Your task to perform on an android device: turn off data saver in the chrome app Image 0: 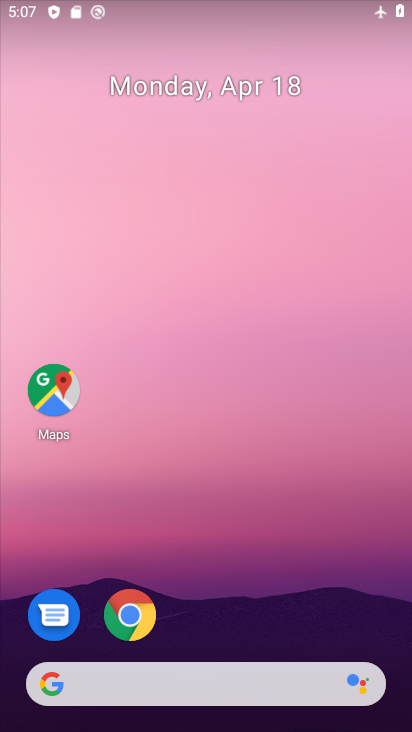
Step 0: click (126, 609)
Your task to perform on an android device: turn off data saver in the chrome app Image 1: 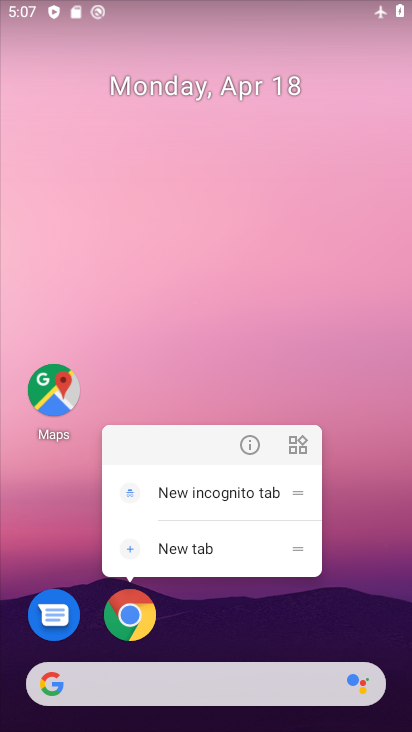
Step 1: click (127, 622)
Your task to perform on an android device: turn off data saver in the chrome app Image 2: 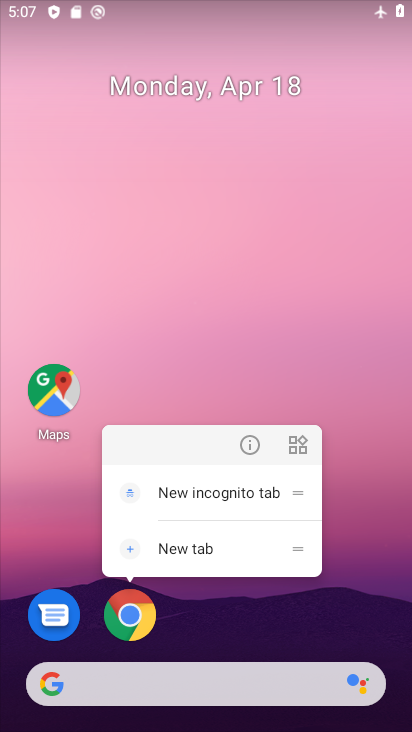
Step 2: click (123, 622)
Your task to perform on an android device: turn off data saver in the chrome app Image 3: 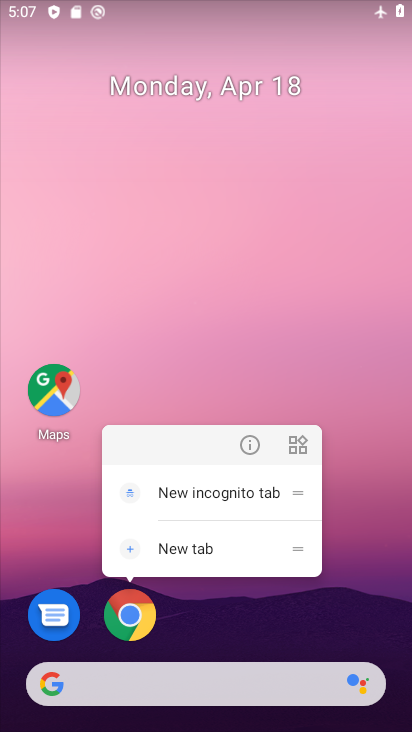
Step 3: click (227, 630)
Your task to perform on an android device: turn off data saver in the chrome app Image 4: 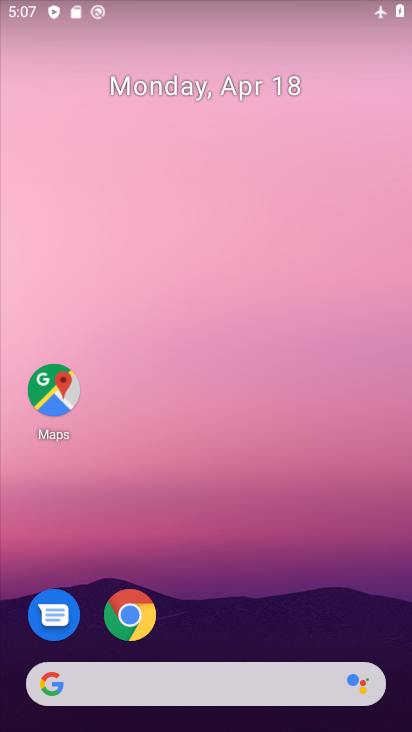
Step 4: drag from (227, 630) to (321, 10)
Your task to perform on an android device: turn off data saver in the chrome app Image 5: 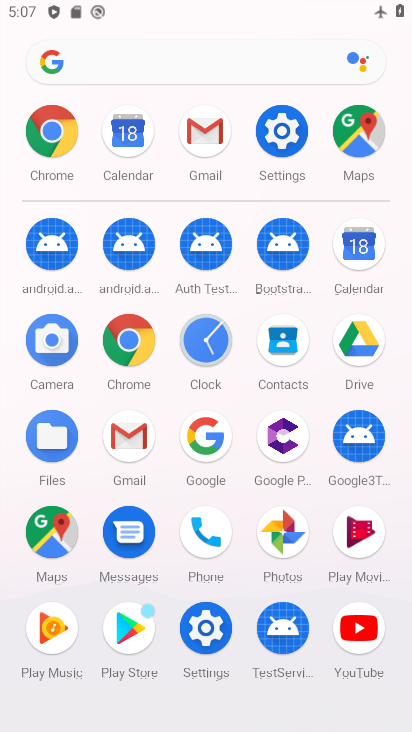
Step 5: click (51, 139)
Your task to perform on an android device: turn off data saver in the chrome app Image 6: 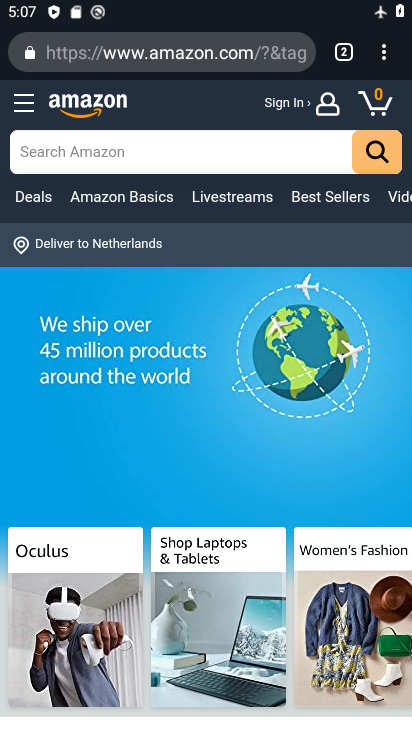
Step 6: click (382, 64)
Your task to perform on an android device: turn off data saver in the chrome app Image 7: 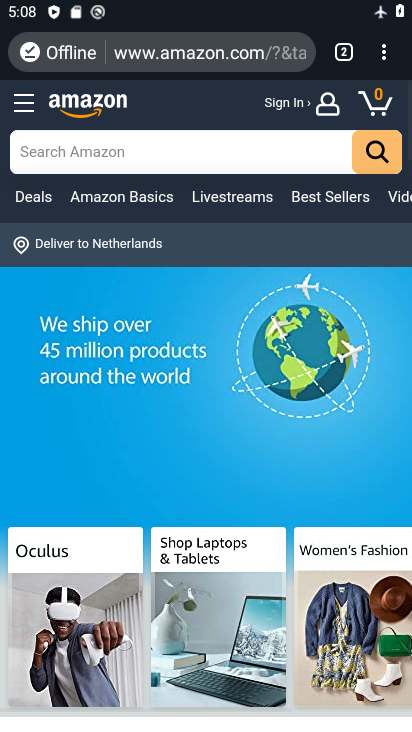
Step 7: click (382, 64)
Your task to perform on an android device: turn off data saver in the chrome app Image 8: 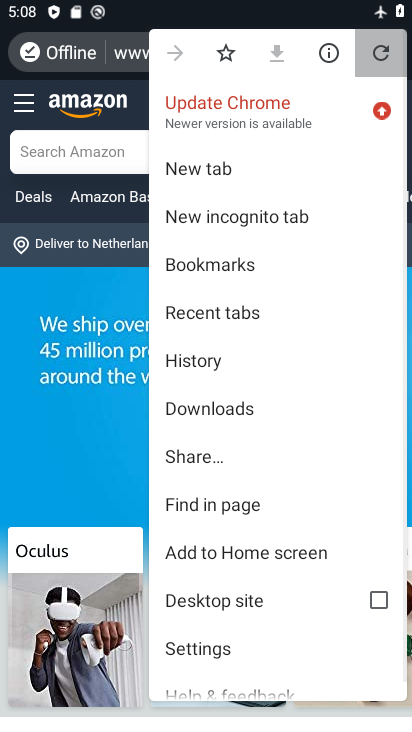
Step 8: drag from (286, 230) to (242, 395)
Your task to perform on an android device: turn off data saver in the chrome app Image 9: 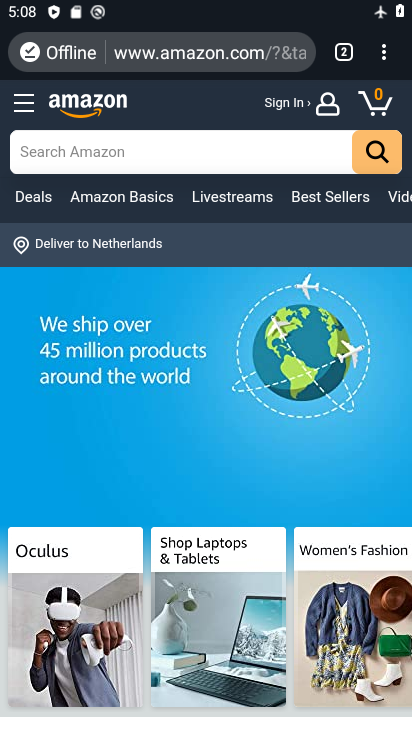
Step 9: drag from (384, 42) to (221, 636)
Your task to perform on an android device: turn off data saver in the chrome app Image 10: 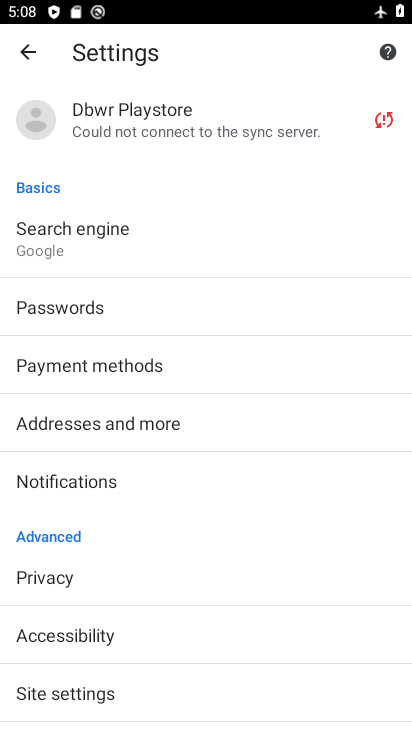
Step 10: drag from (215, 587) to (224, 25)
Your task to perform on an android device: turn off data saver in the chrome app Image 11: 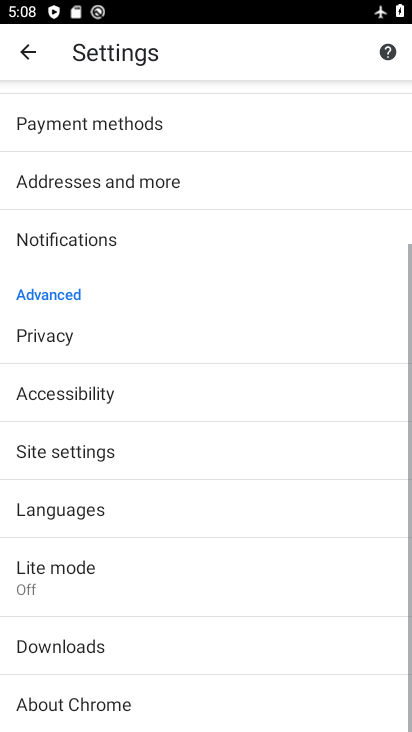
Step 11: click (80, 580)
Your task to perform on an android device: turn off data saver in the chrome app Image 12: 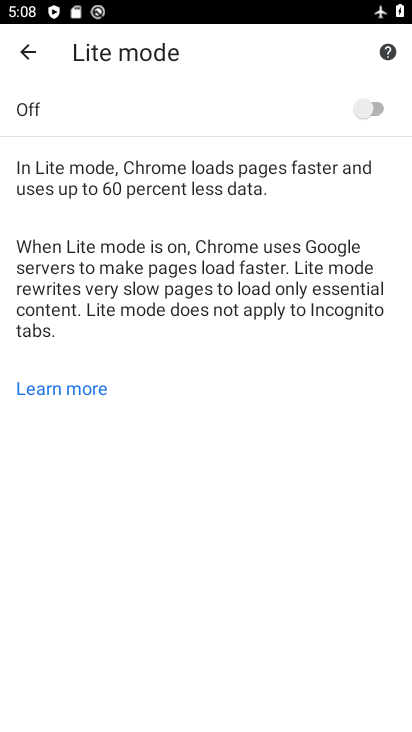
Step 12: task complete